Your task to perform on an android device: clear history in the chrome app Image 0: 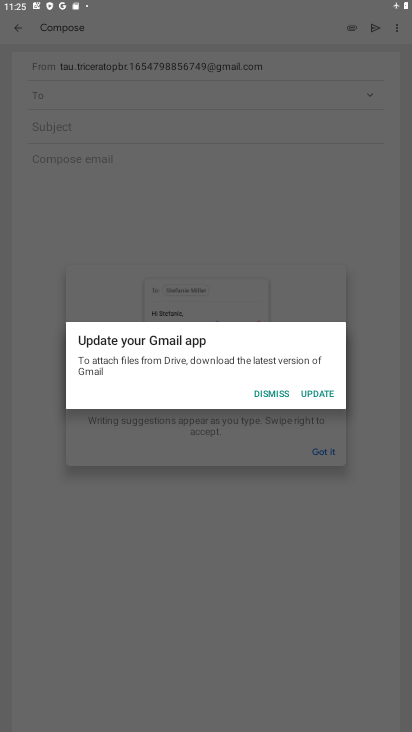
Step 0: press home button
Your task to perform on an android device: clear history in the chrome app Image 1: 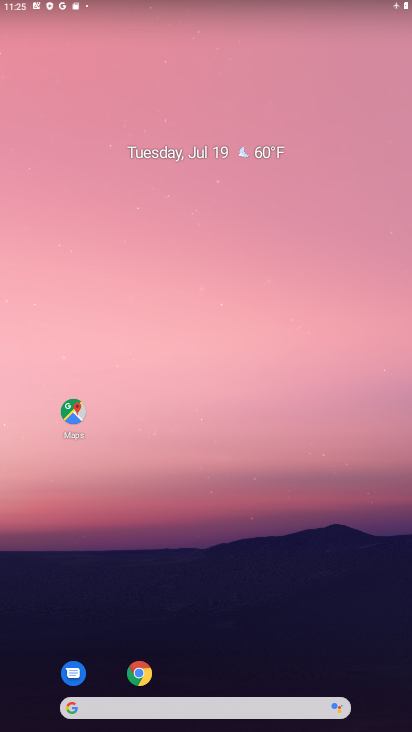
Step 1: click (137, 675)
Your task to perform on an android device: clear history in the chrome app Image 2: 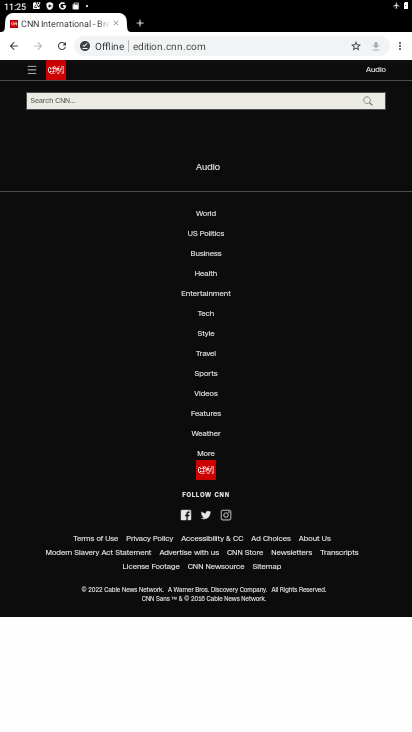
Step 2: click (399, 47)
Your task to perform on an android device: clear history in the chrome app Image 3: 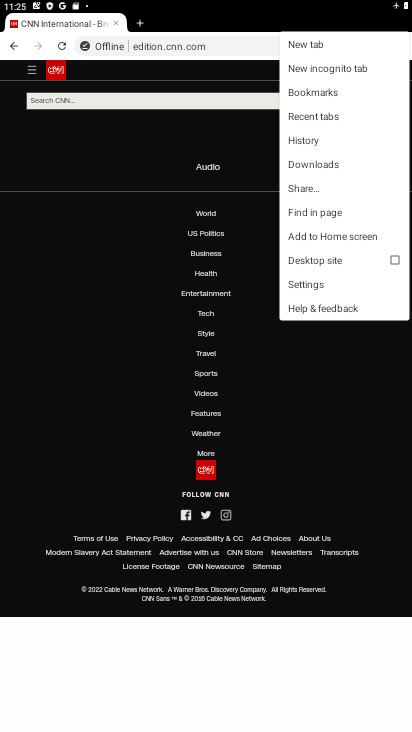
Step 3: click (304, 141)
Your task to perform on an android device: clear history in the chrome app Image 4: 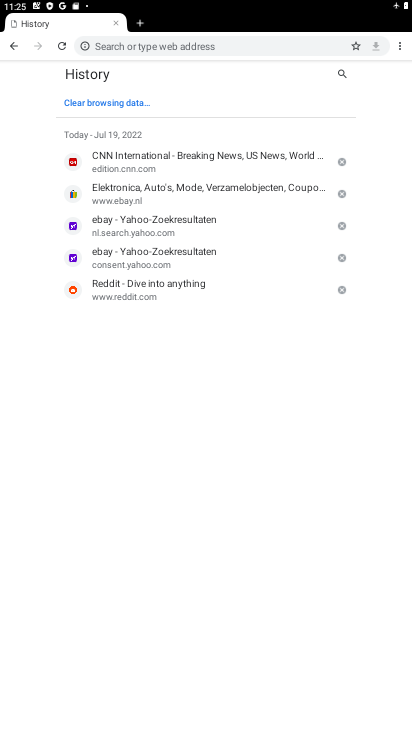
Step 4: click (88, 99)
Your task to perform on an android device: clear history in the chrome app Image 5: 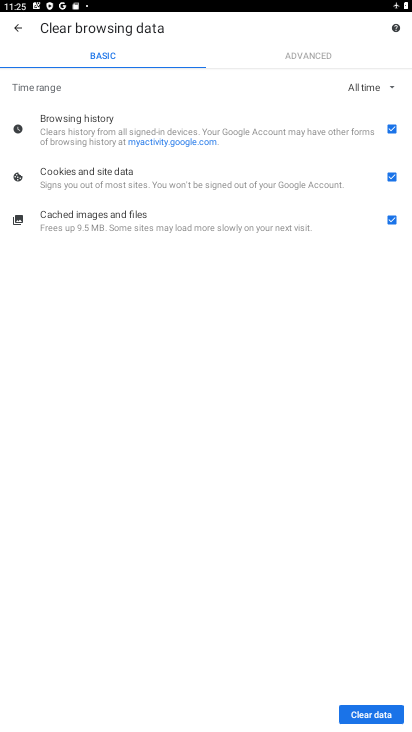
Step 5: click (388, 218)
Your task to perform on an android device: clear history in the chrome app Image 6: 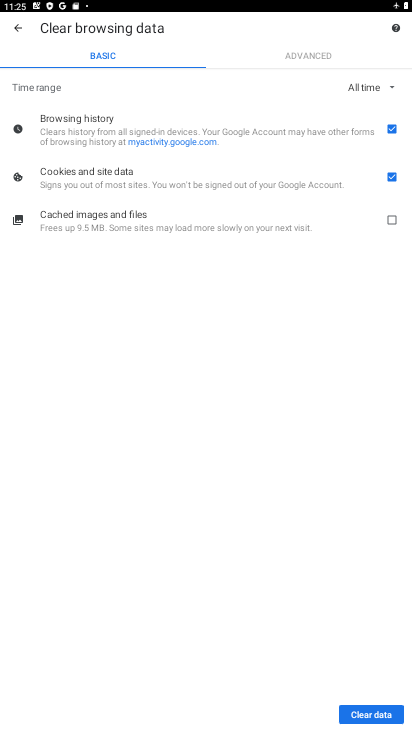
Step 6: click (387, 174)
Your task to perform on an android device: clear history in the chrome app Image 7: 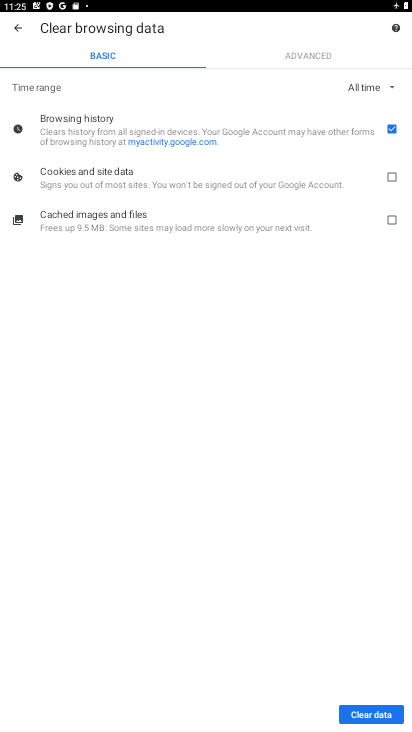
Step 7: click (374, 715)
Your task to perform on an android device: clear history in the chrome app Image 8: 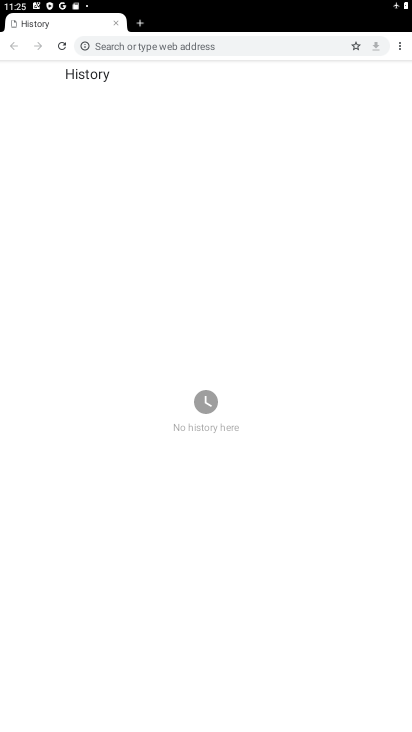
Step 8: task complete